Your task to perform on an android device: open a new tab in the chrome app Image 0: 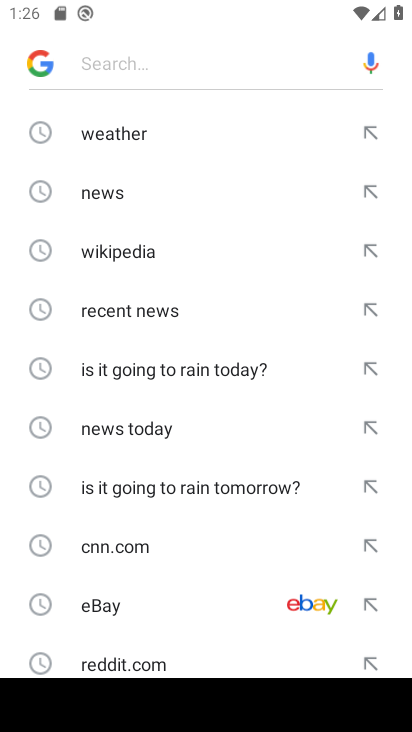
Step 0: press home button
Your task to perform on an android device: open a new tab in the chrome app Image 1: 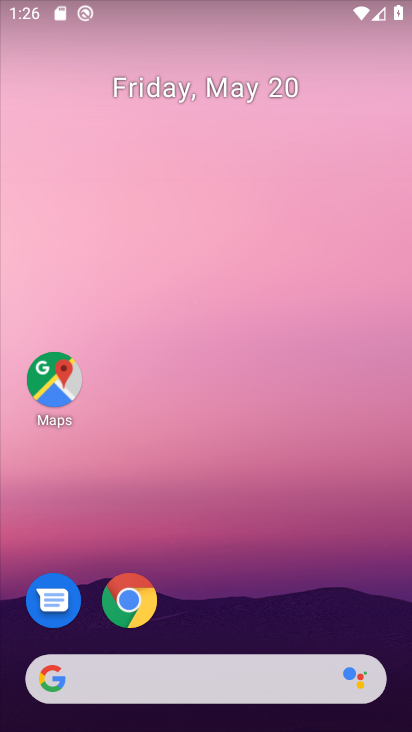
Step 1: click (140, 601)
Your task to perform on an android device: open a new tab in the chrome app Image 2: 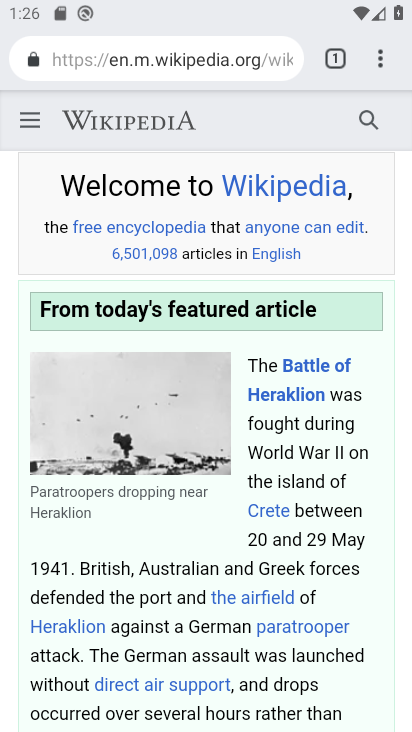
Step 2: click (369, 53)
Your task to perform on an android device: open a new tab in the chrome app Image 3: 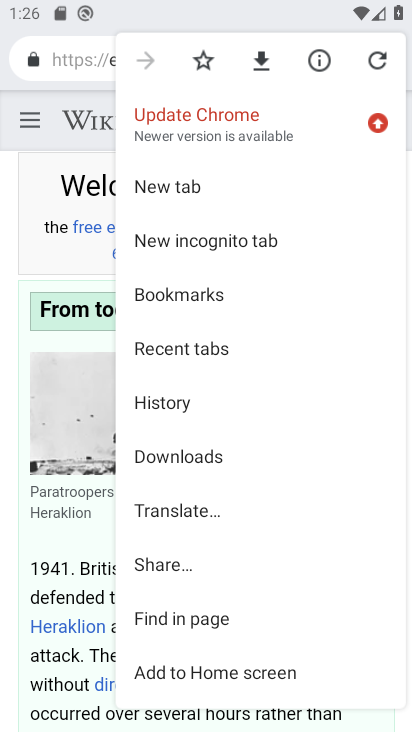
Step 3: click (175, 200)
Your task to perform on an android device: open a new tab in the chrome app Image 4: 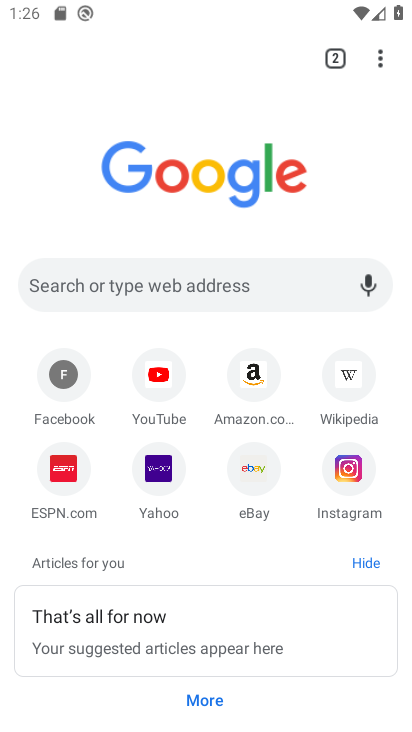
Step 4: task complete